Your task to perform on an android device: Play the latest video from the Wall Street Journal Image 0: 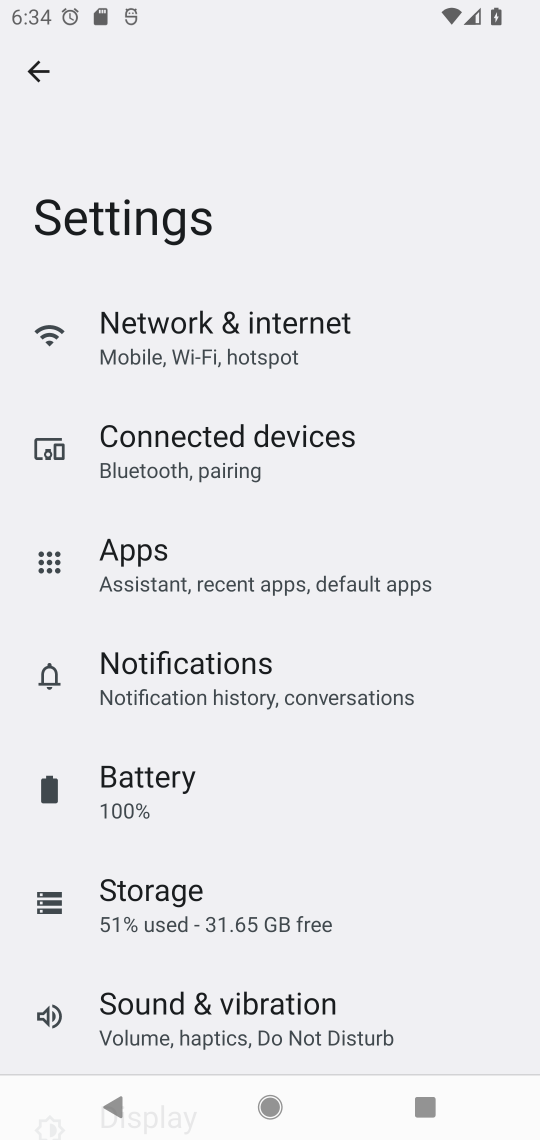
Step 0: press home button
Your task to perform on an android device: Play the latest video from the Wall Street Journal Image 1: 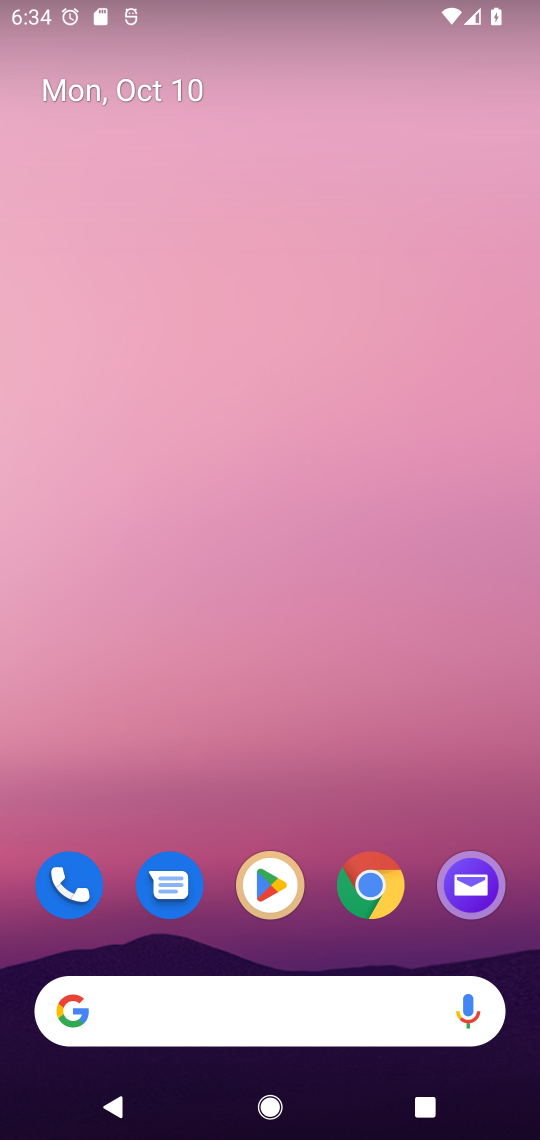
Step 1: click (368, 889)
Your task to perform on an android device: Play the latest video from the Wall Street Journal Image 2: 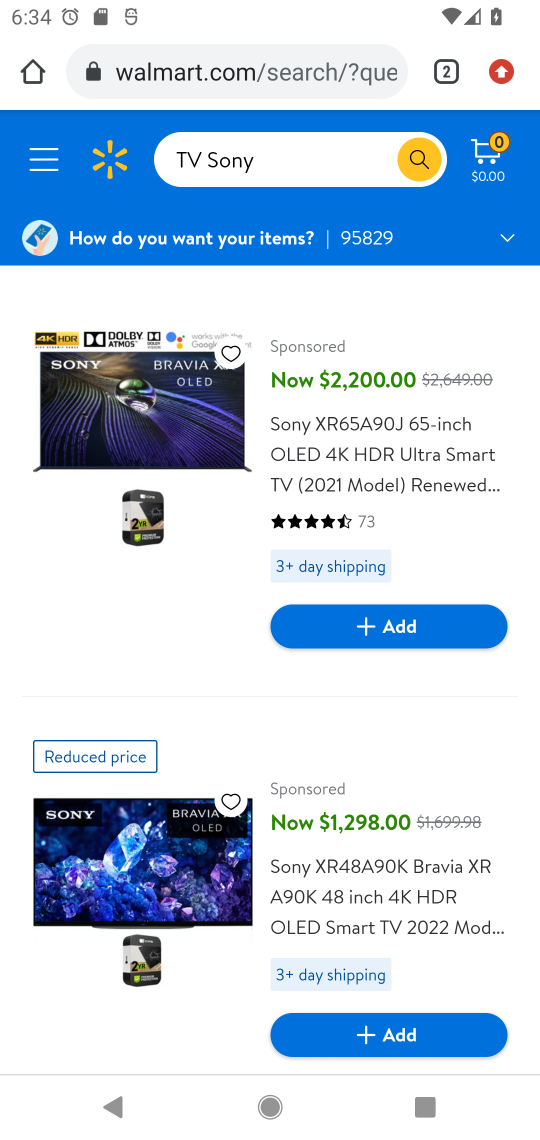
Step 2: click (213, 68)
Your task to perform on an android device: Play the latest video from the Wall Street Journal Image 3: 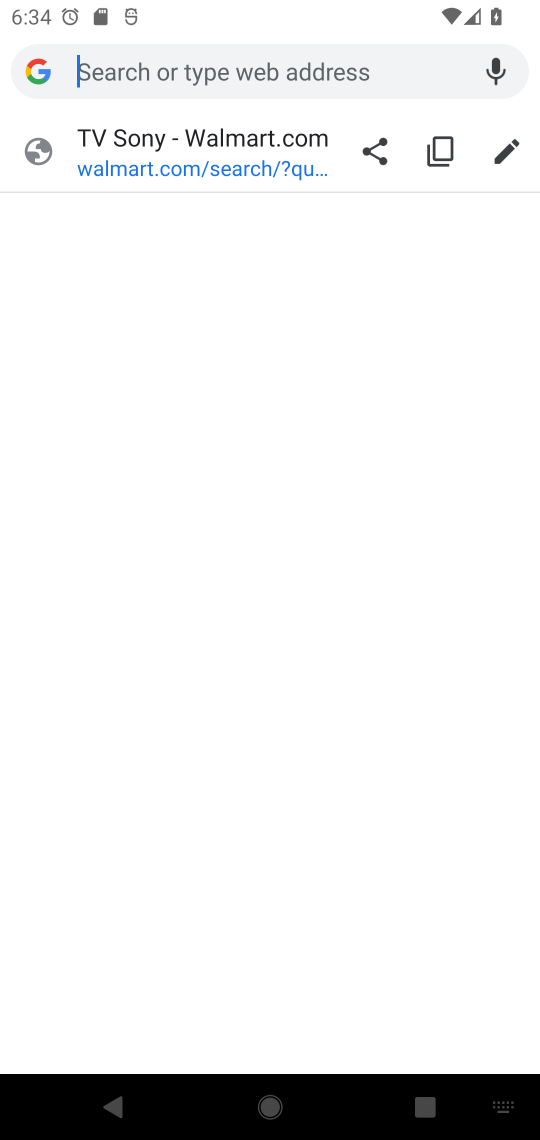
Step 3: type "latest video from the Wall Street Journal"
Your task to perform on an android device: Play the latest video from the Wall Street Journal Image 4: 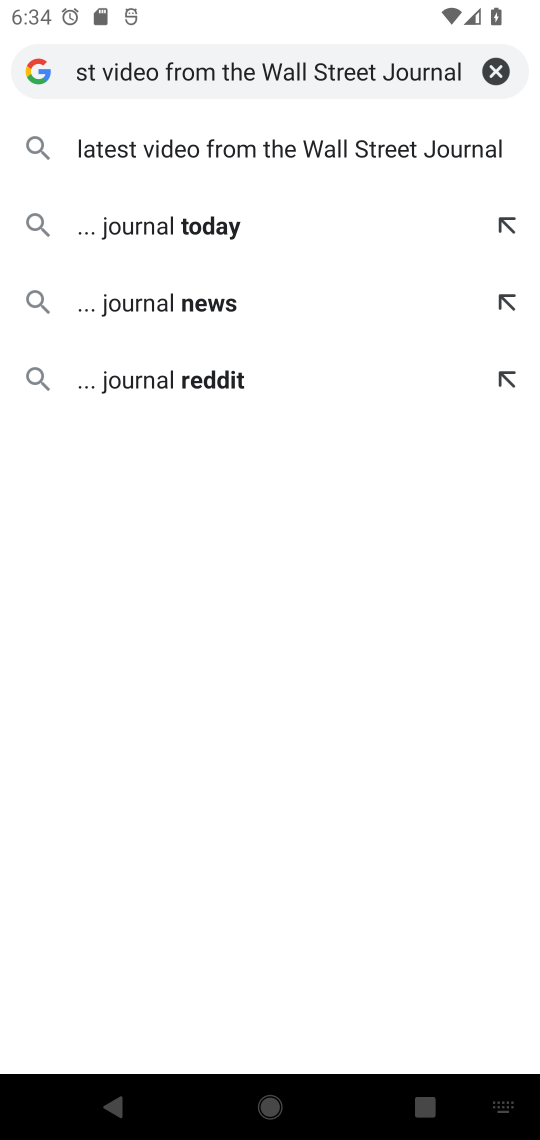
Step 4: click (359, 147)
Your task to perform on an android device: Play the latest video from the Wall Street Journal Image 5: 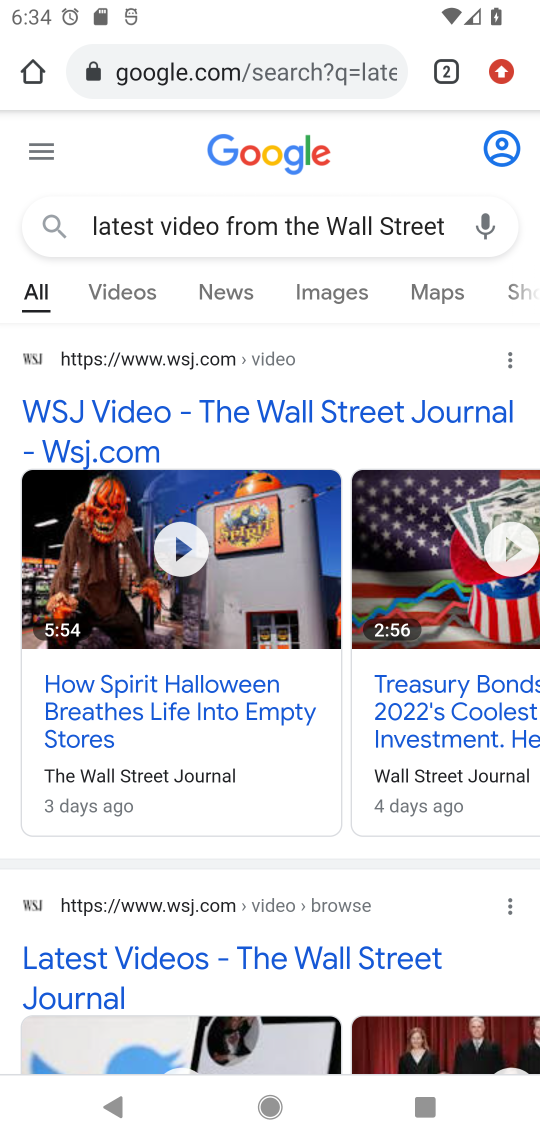
Step 5: click (171, 558)
Your task to perform on an android device: Play the latest video from the Wall Street Journal Image 6: 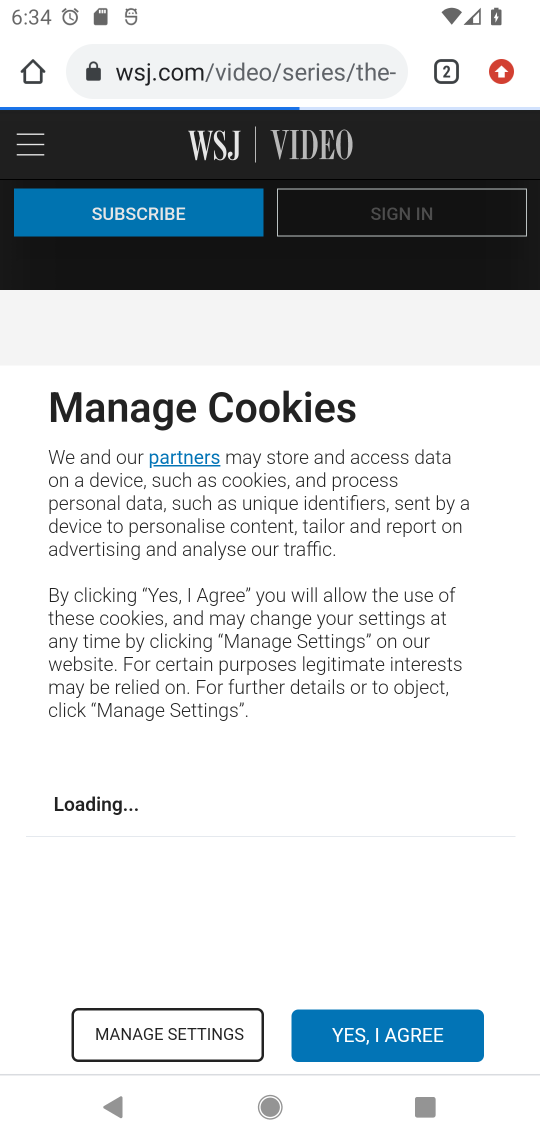
Step 6: click (386, 1031)
Your task to perform on an android device: Play the latest video from the Wall Street Journal Image 7: 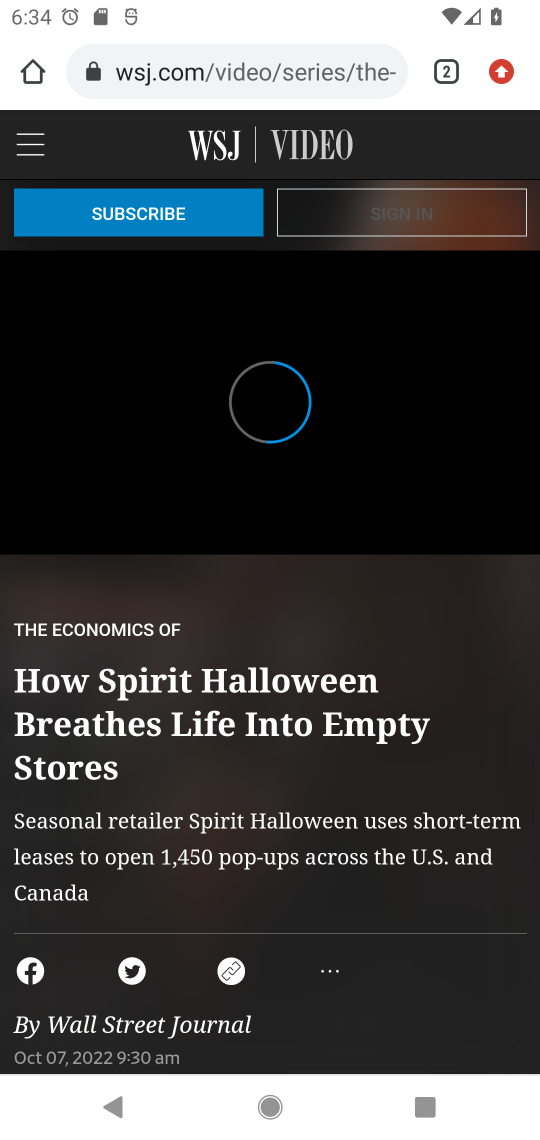
Step 7: drag from (408, 949) to (303, 907)
Your task to perform on an android device: Play the latest video from the Wall Street Journal Image 8: 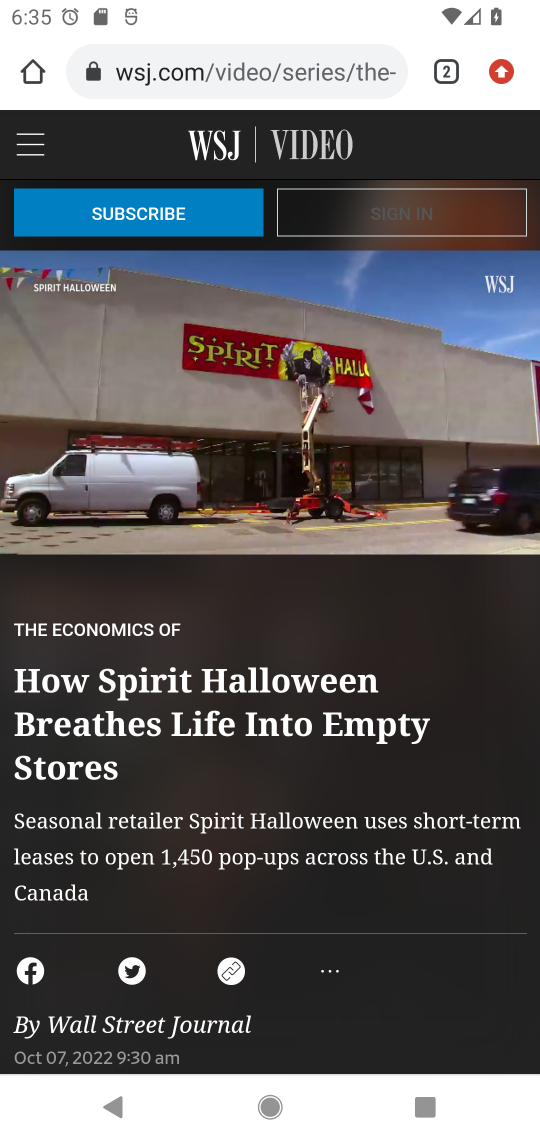
Step 8: click (63, 486)
Your task to perform on an android device: Play the latest video from the Wall Street Journal Image 9: 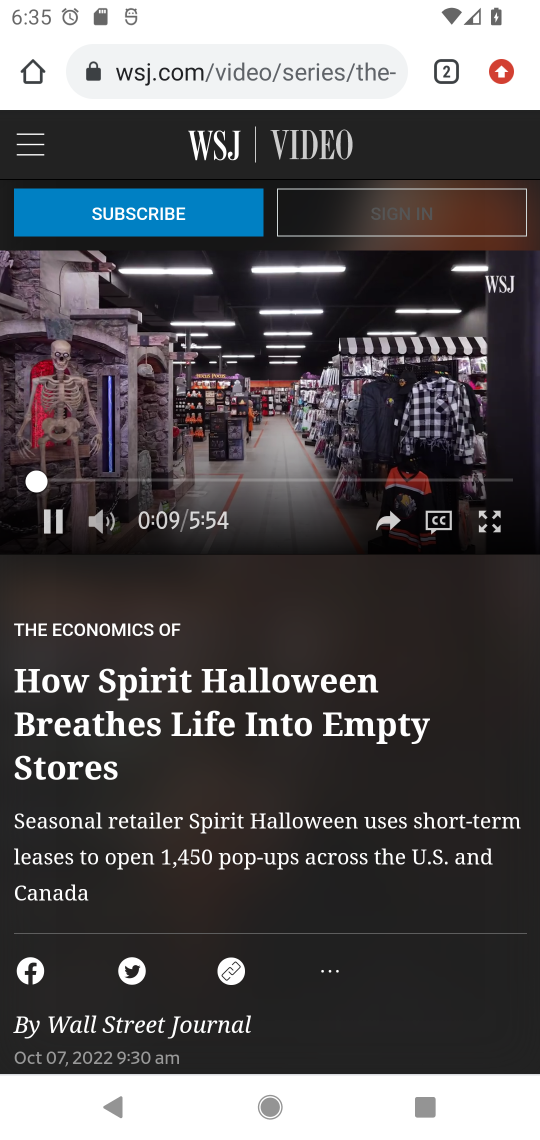
Step 9: task complete